Your task to perform on an android device: turn off translation in the chrome app Image 0: 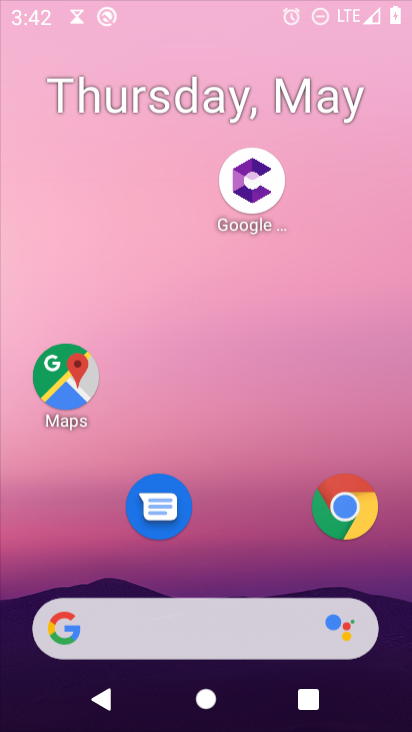
Step 0: press home button
Your task to perform on an android device: turn off translation in the chrome app Image 1: 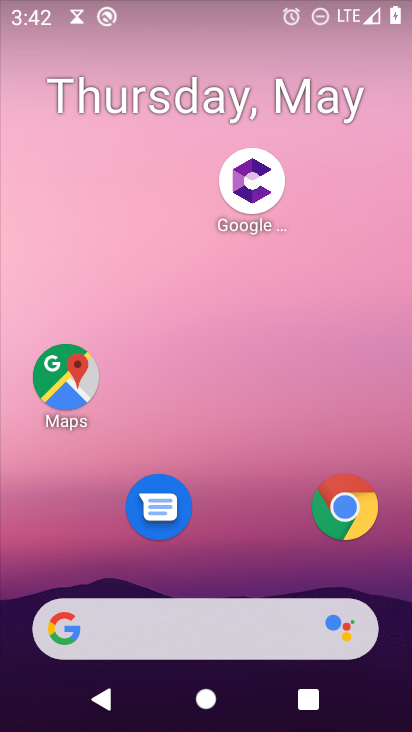
Step 1: click (336, 513)
Your task to perform on an android device: turn off translation in the chrome app Image 2: 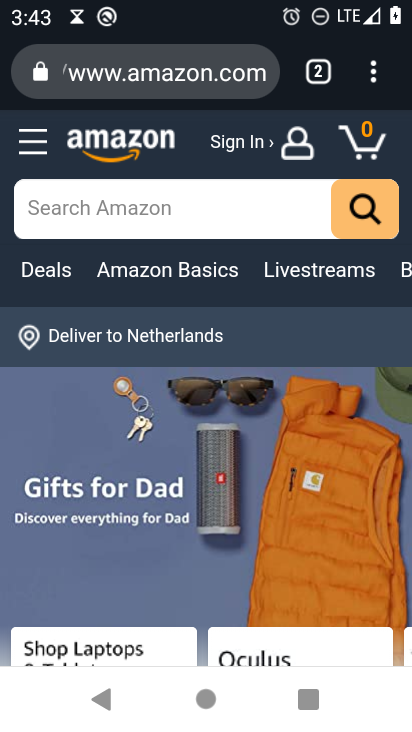
Step 2: drag from (381, 80) to (211, 510)
Your task to perform on an android device: turn off translation in the chrome app Image 3: 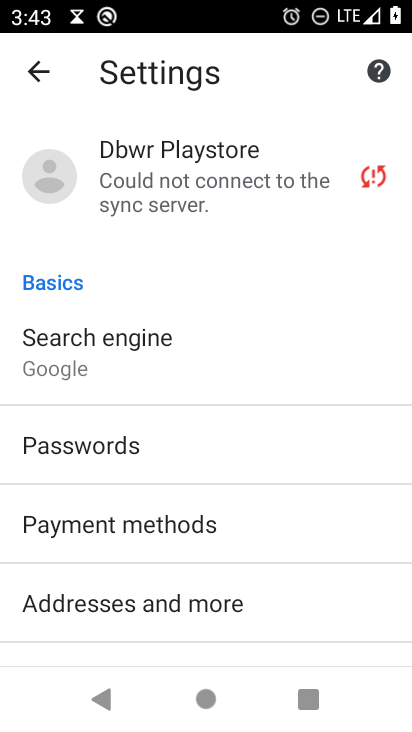
Step 3: drag from (271, 588) to (199, 99)
Your task to perform on an android device: turn off translation in the chrome app Image 4: 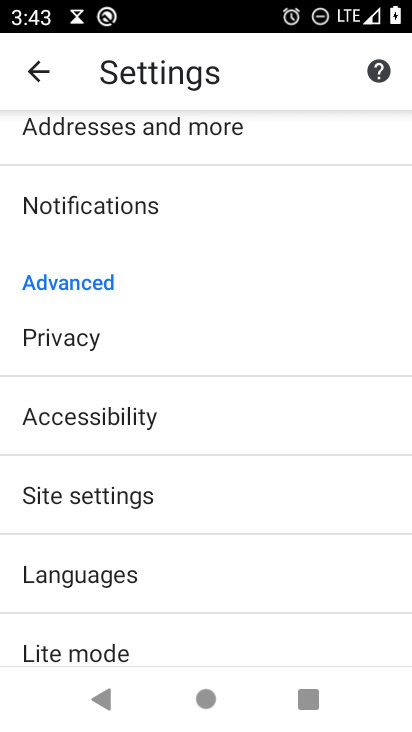
Step 4: click (75, 576)
Your task to perform on an android device: turn off translation in the chrome app Image 5: 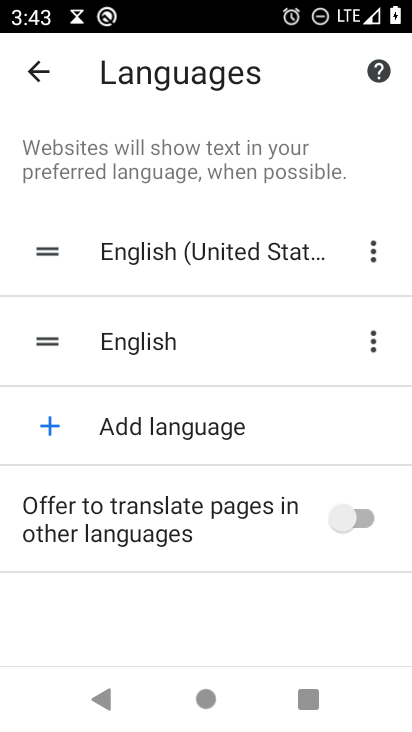
Step 5: task complete